Your task to perform on an android device: Go to Maps Image 0: 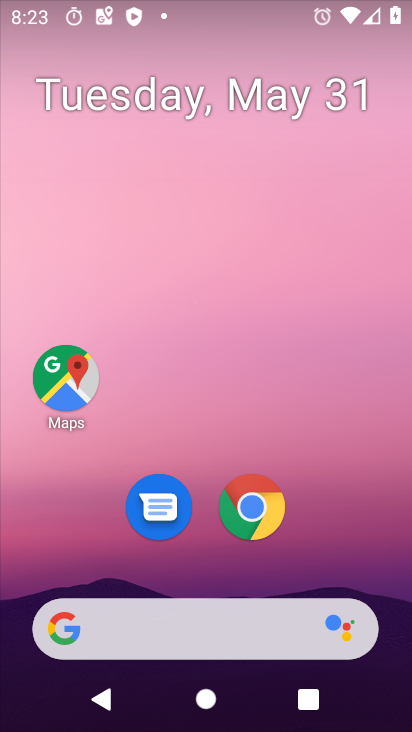
Step 0: click (64, 384)
Your task to perform on an android device: Go to Maps Image 1: 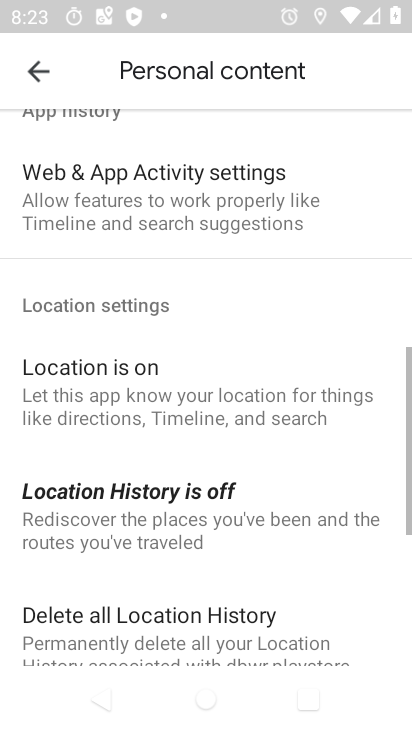
Step 1: click (38, 79)
Your task to perform on an android device: Go to Maps Image 2: 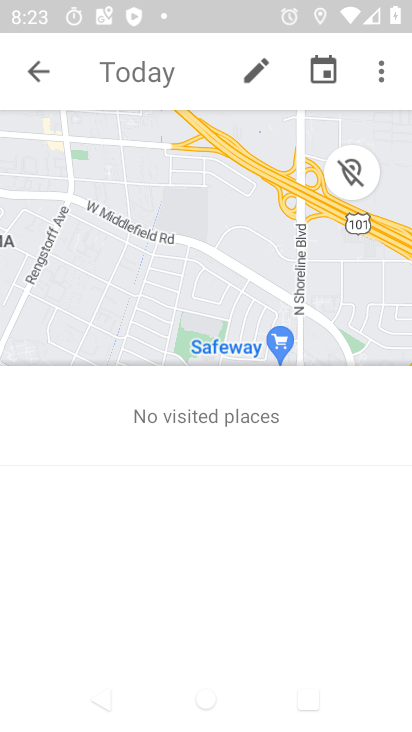
Step 2: click (38, 76)
Your task to perform on an android device: Go to Maps Image 3: 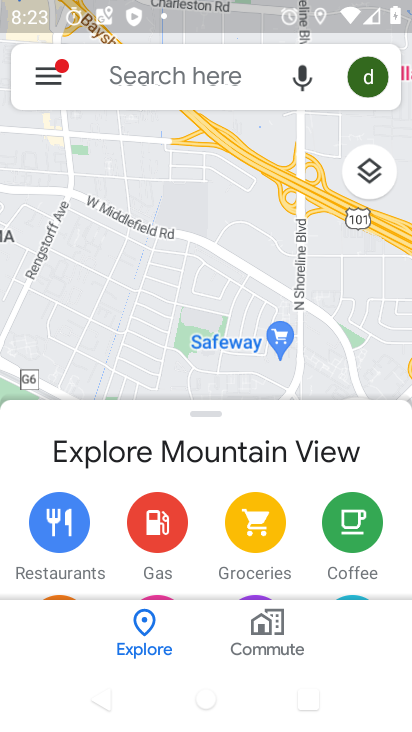
Step 3: task complete